Your task to perform on an android device: Go to display settings Image 0: 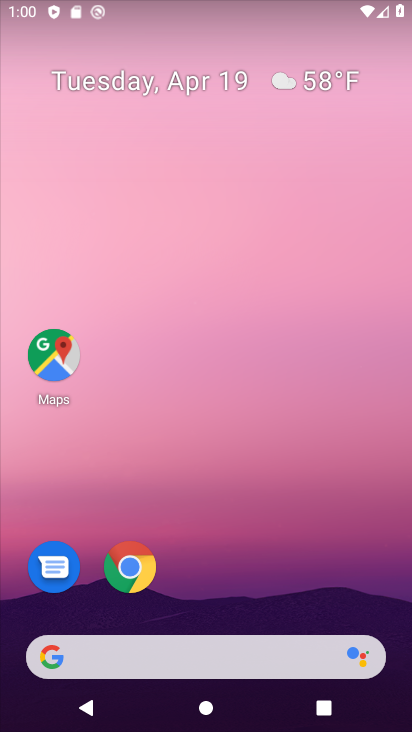
Step 0: drag from (380, 613) to (360, 117)
Your task to perform on an android device: Go to display settings Image 1: 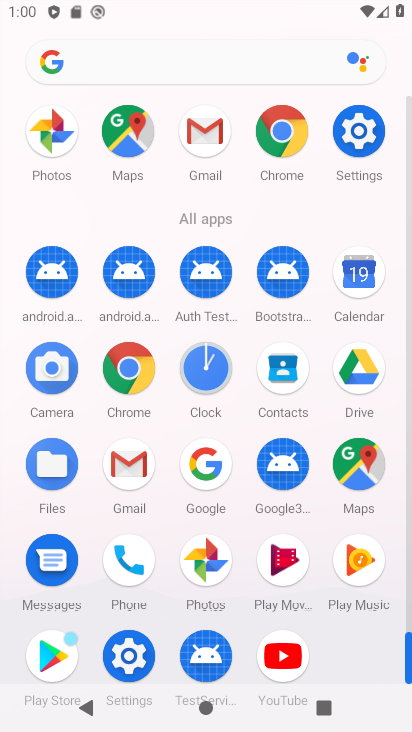
Step 1: drag from (409, 647) to (405, 728)
Your task to perform on an android device: Go to display settings Image 2: 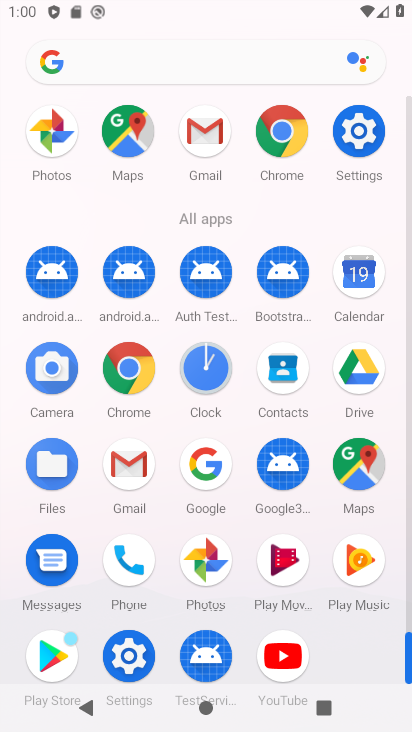
Step 2: click (127, 657)
Your task to perform on an android device: Go to display settings Image 3: 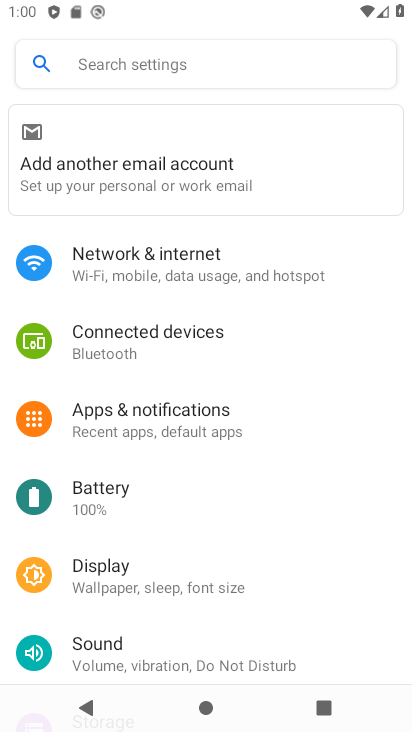
Step 3: click (97, 573)
Your task to perform on an android device: Go to display settings Image 4: 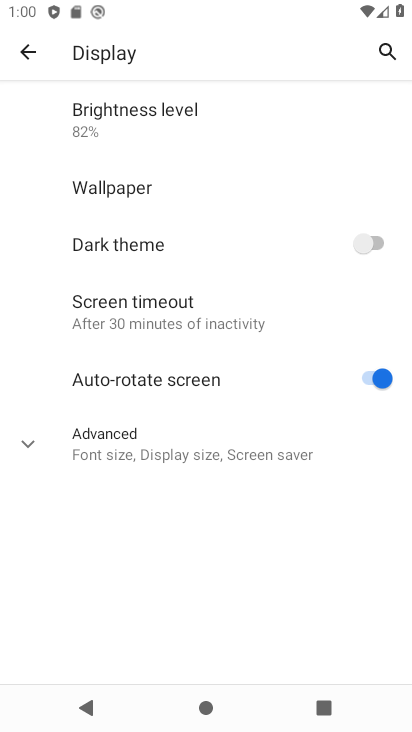
Step 4: click (24, 443)
Your task to perform on an android device: Go to display settings Image 5: 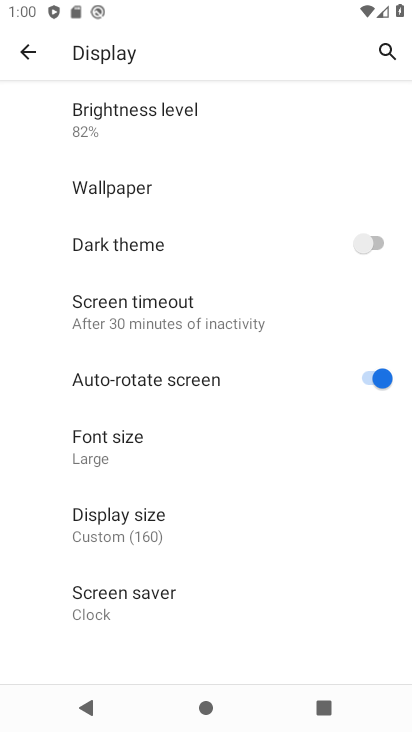
Step 5: task complete